Your task to perform on an android device: Open my contact list Image 0: 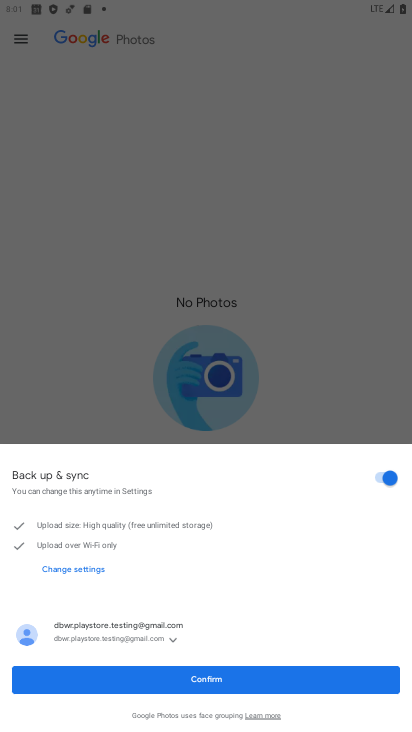
Step 0: press home button
Your task to perform on an android device: Open my contact list Image 1: 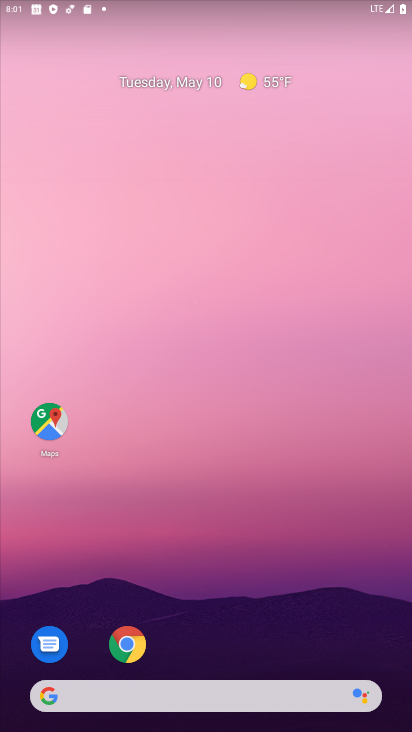
Step 1: drag from (241, 652) to (241, 98)
Your task to perform on an android device: Open my contact list Image 2: 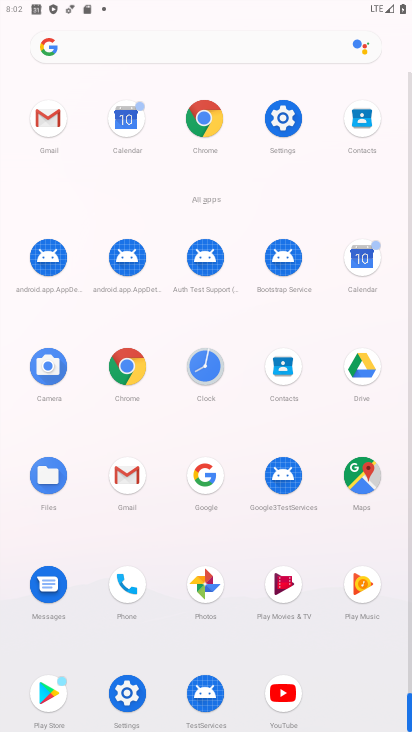
Step 2: click (292, 363)
Your task to perform on an android device: Open my contact list Image 3: 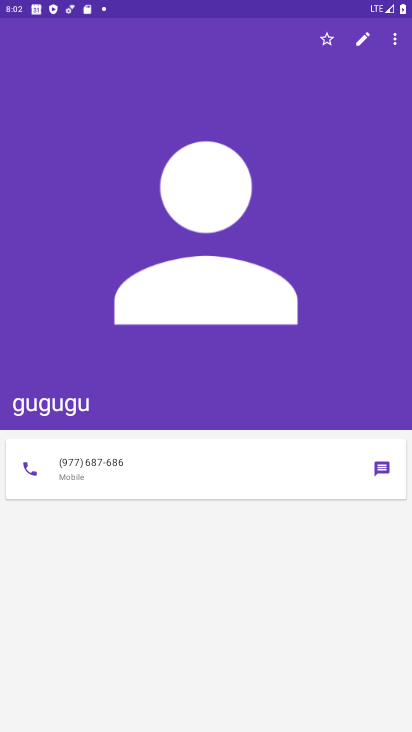
Step 3: task complete